Your task to perform on an android device: open device folders in google photos Image 0: 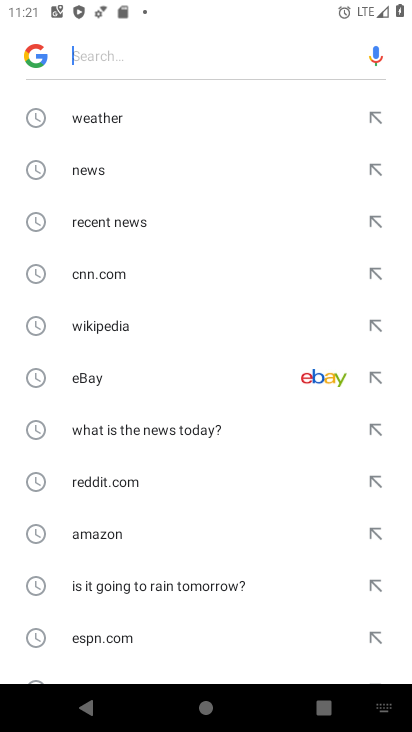
Step 0: press home button
Your task to perform on an android device: open device folders in google photos Image 1: 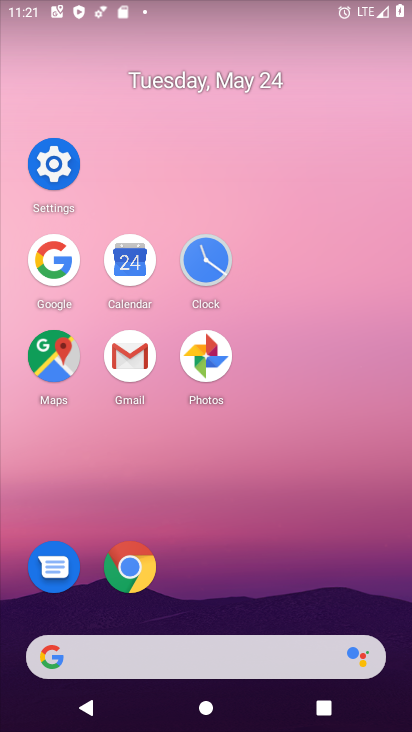
Step 1: click (211, 354)
Your task to perform on an android device: open device folders in google photos Image 2: 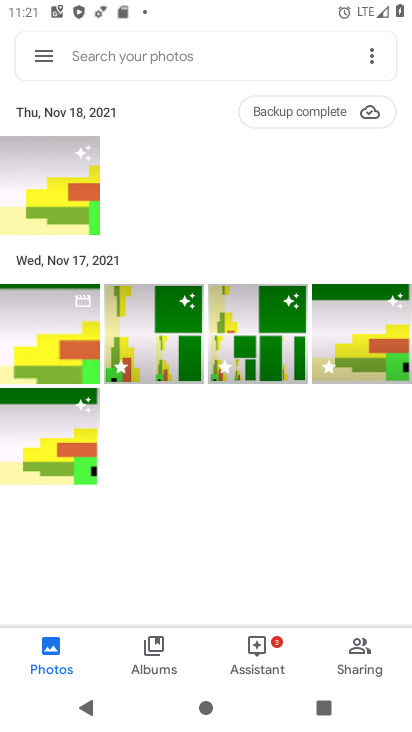
Step 2: click (33, 66)
Your task to perform on an android device: open device folders in google photos Image 3: 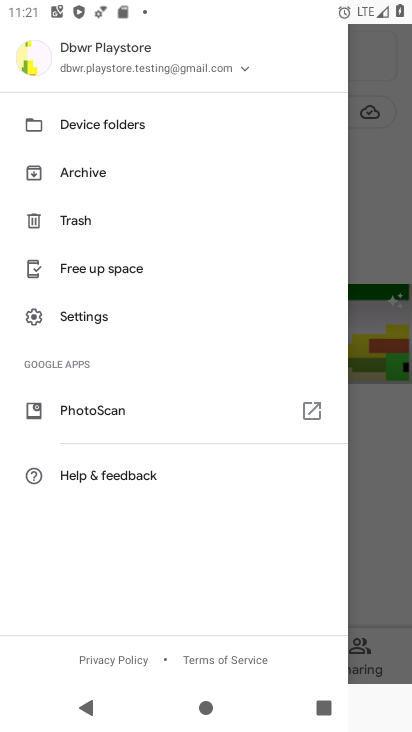
Step 3: click (116, 123)
Your task to perform on an android device: open device folders in google photos Image 4: 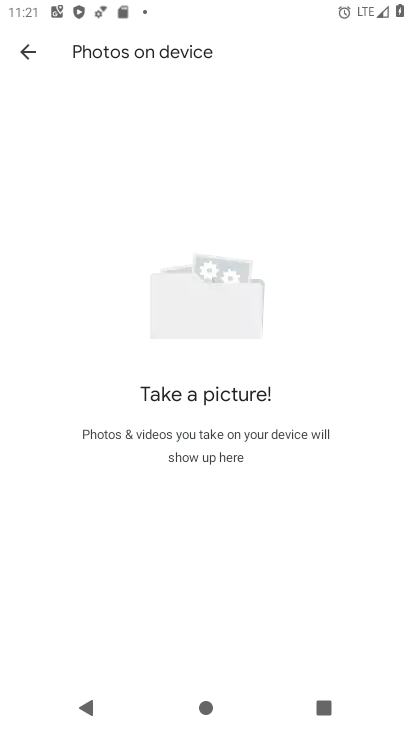
Step 4: task complete